Your task to perform on an android device: Go to Amazon Image 0: 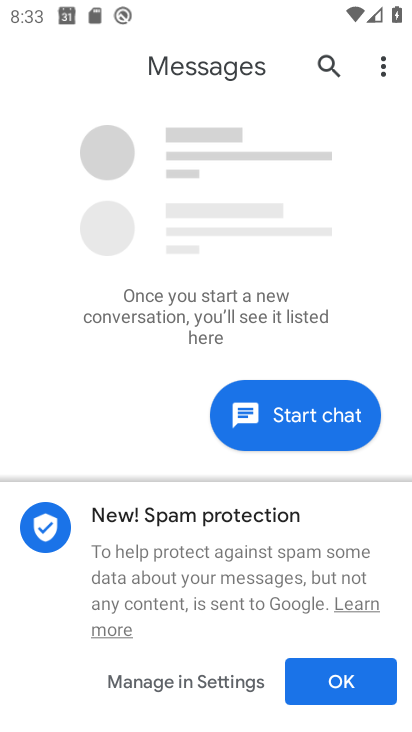
Step 0: press home button
Your task to perform on an android device: Go to Amazon Image 1: 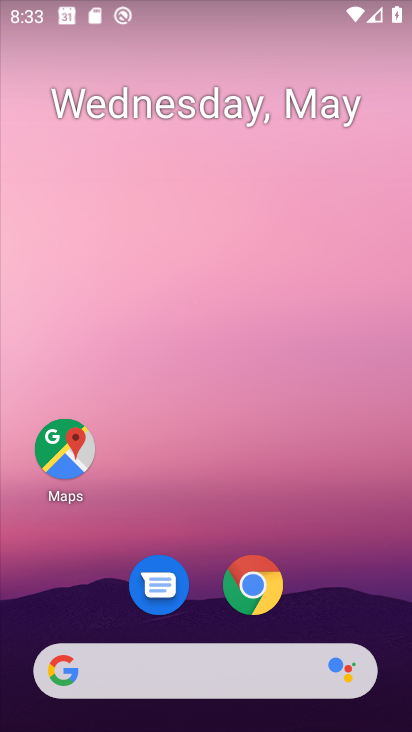
Step 1: click (213, 689)
Your task to perform on an android device: Go to Amazon Image 2: 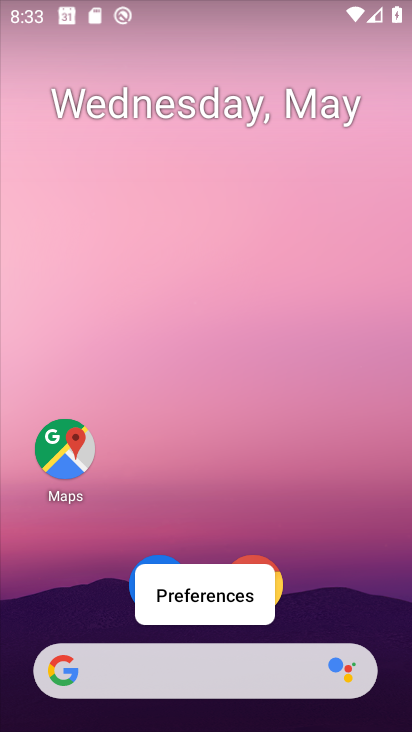
Step 2: click (221, 673)
Your task to perform on an android device: Go to Amazon Image 3: 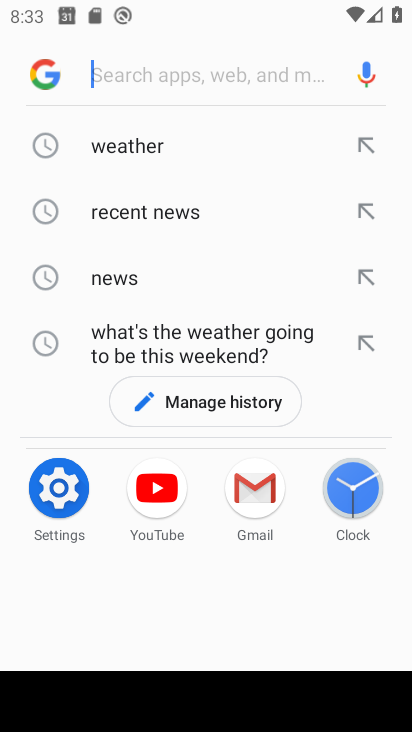
Step 3: type "amazon"
Your task to perform on an android device: Go to Amazon Image 4: 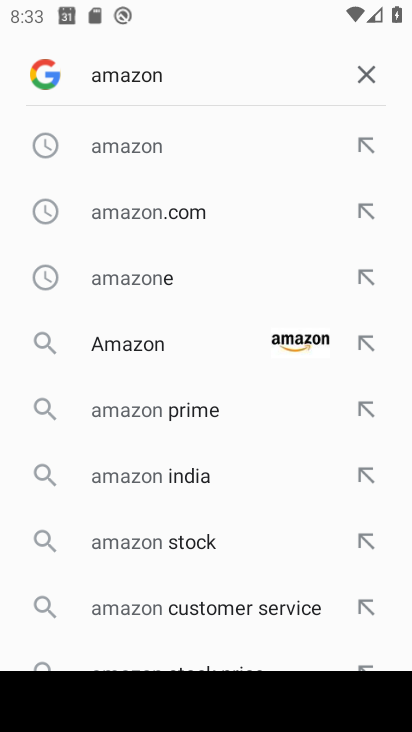
Step 4: click (159, 335)
Your task to perform on an android device: Go to Amazon Image 5: 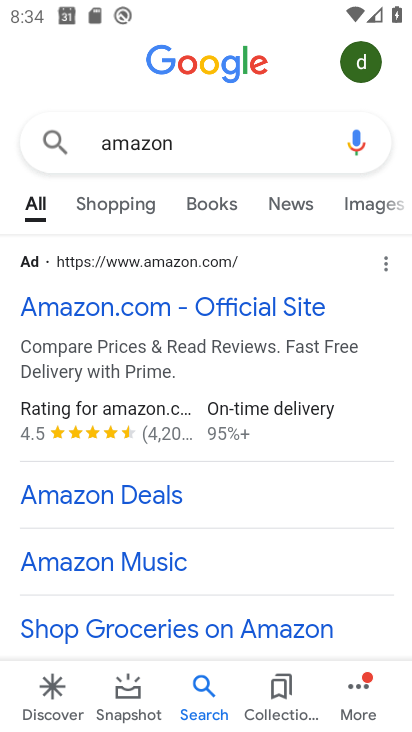
Step 5: click (151, 304)
Your task to perform on an android device: Go to Amazon Image 6: 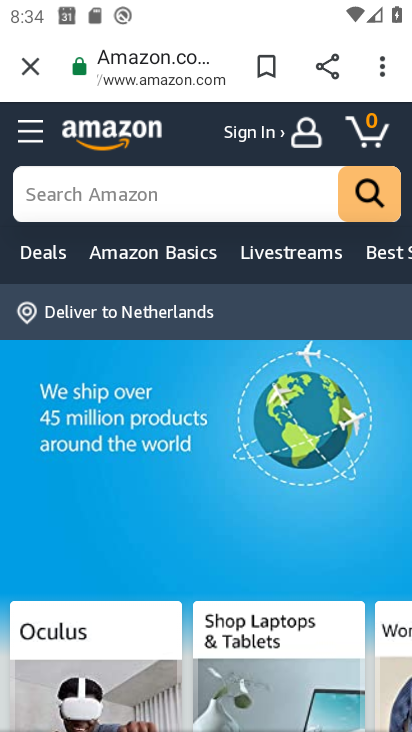
Step 6: task complete